Your task to perform on an android device: change the clock display to analog Image 0: 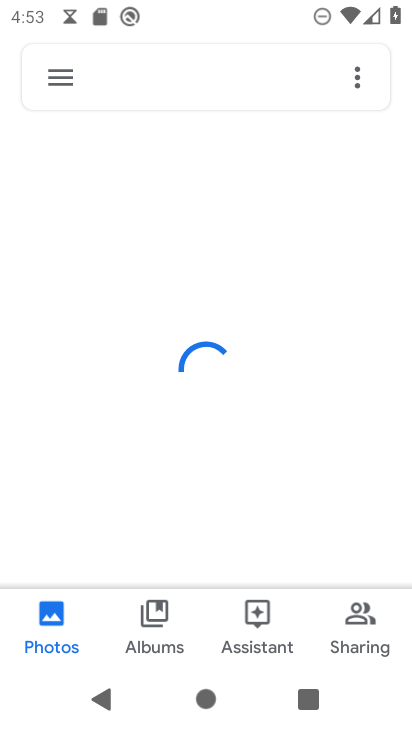
Step 0: press home button
Your task to perform on an android device: change the clock display to analog Image 1: 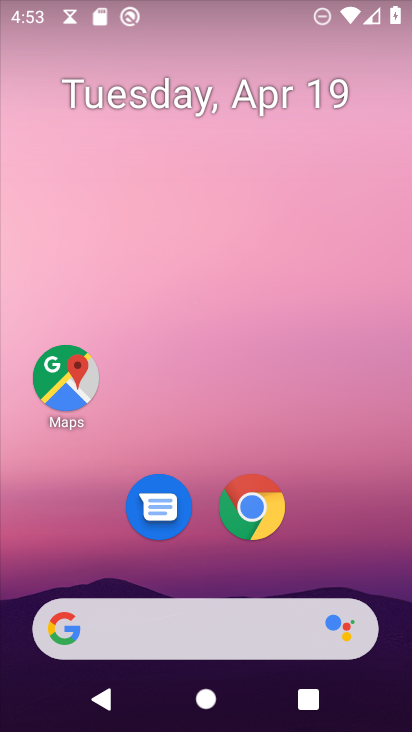
Step 1: drag from (291, 533) to (219, 47)
Your task to perform on an android device: change the clock display to analog Image 2: 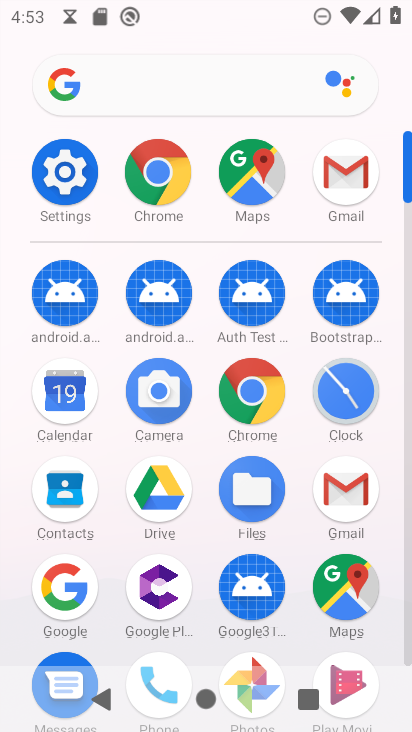
Step 2: click (352, 402)
Your task to perform on an android device: change the clock display to analog Image 3: 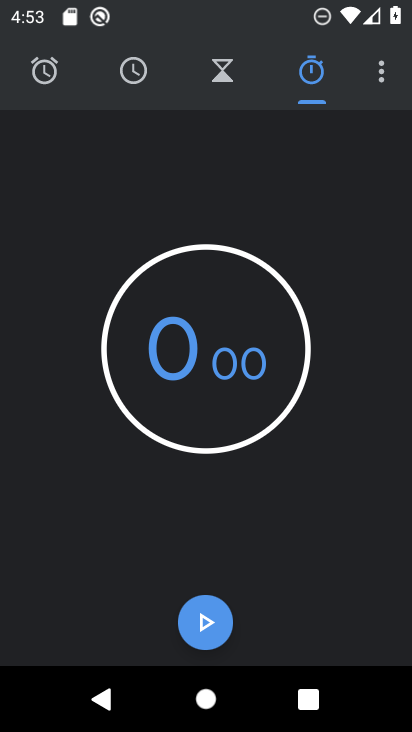
Step 3: click (372, 61)
Your task to perform on an android device: change the clock display to analog Image 4: 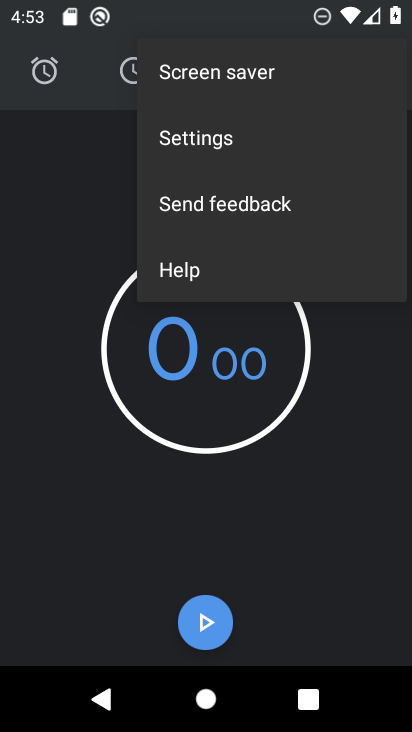
Step 4: click (167, 139)
Your task to perform on an android device: change the clock display to analog Image 5: 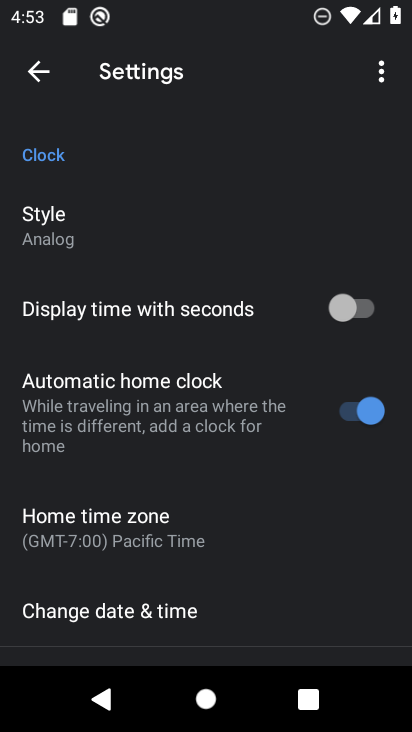
Step 5: task complete